Your task to perform on an android device: Go to CNN.com Image 0: 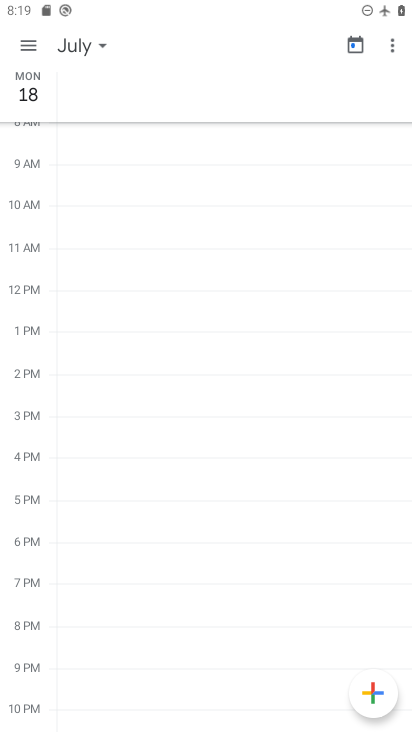
Step 0: press home button
Your task to perform on an android device: Go to CNN.com Image 1: 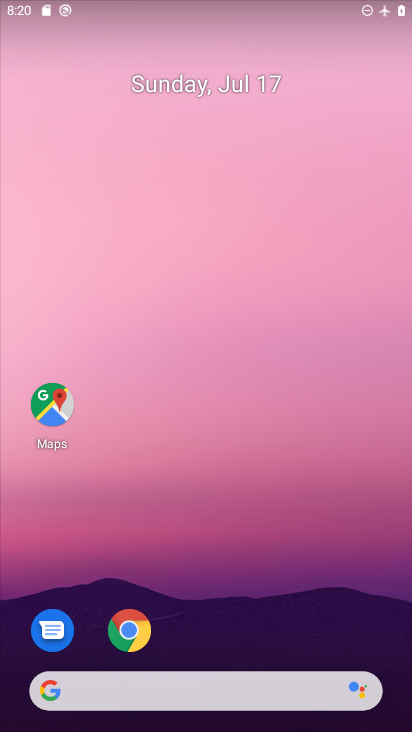
Step 1: click (132, 633)
Your task to perform on an android device: Go to CNN.com Image 2: 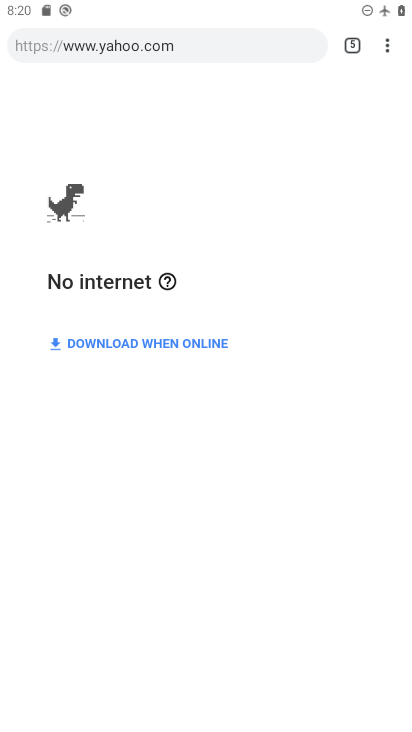
Step 2: click (407, 47)
Your task to perform on an android device: Go to CNN.com Image 3: 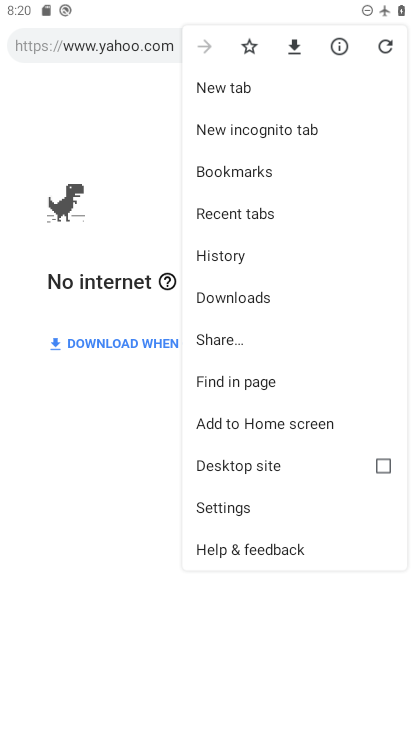
Step 3: click (261, 88)
Your task to perform on an android device: Go to CNN.com Image 4: 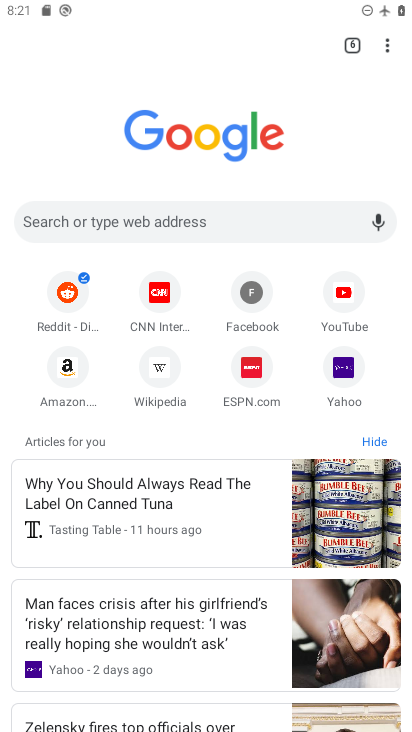
Step 4: click (162, 298)
Your task to perform on an android device: Go to CNN.com Image 5: 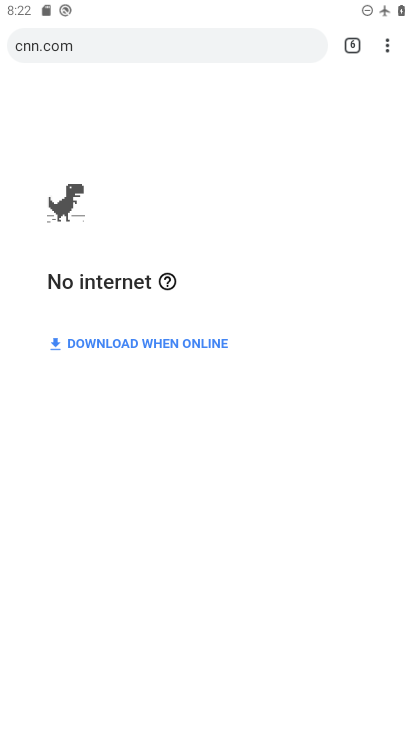
Step 5: task complete